Your task to perform on an android device: What's the weather? Image 0: 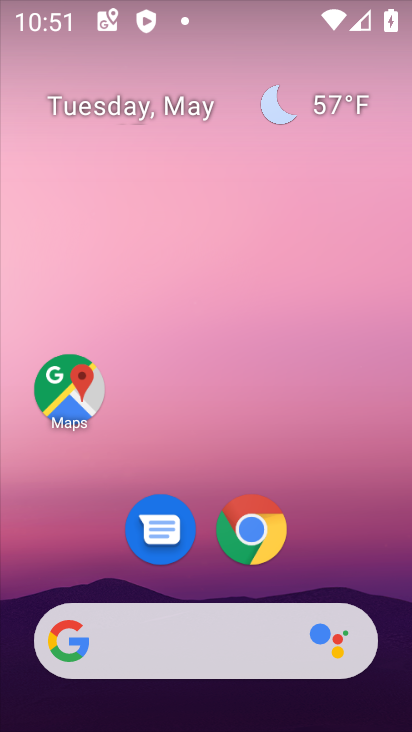
Step 0: click (349, 105)
Your task to perform on an android device: What's the weather? Image 1: 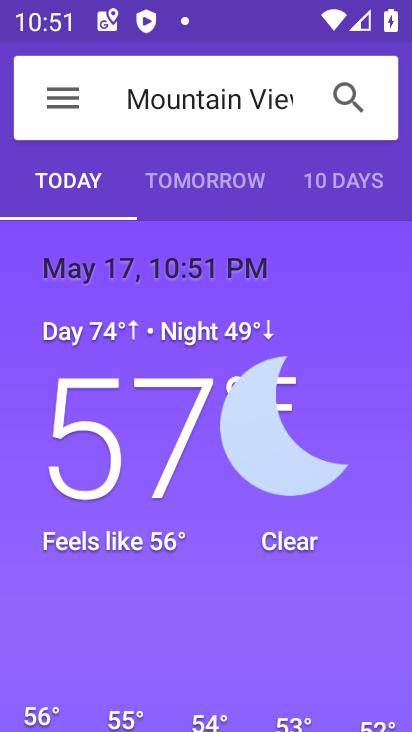
Step 1: task complete